Your task to perform on an android device: Open Chrome and go to settings Image 0: 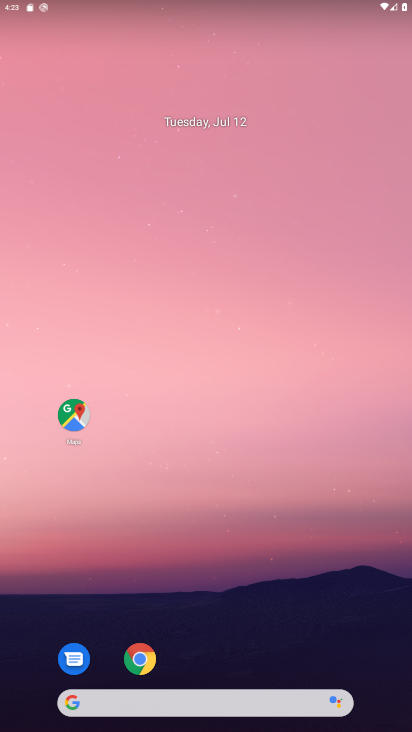
Step 0: click (133, 665)
Your task to perform on an android device: Open Chrome and go to settings Image 1: 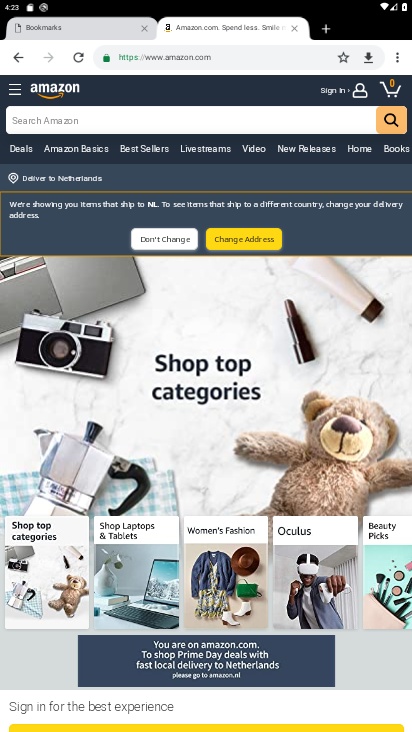
Step 1: click (393, 53)
Your task to perform on an android device: Open Chrome and go to settings Image 2: 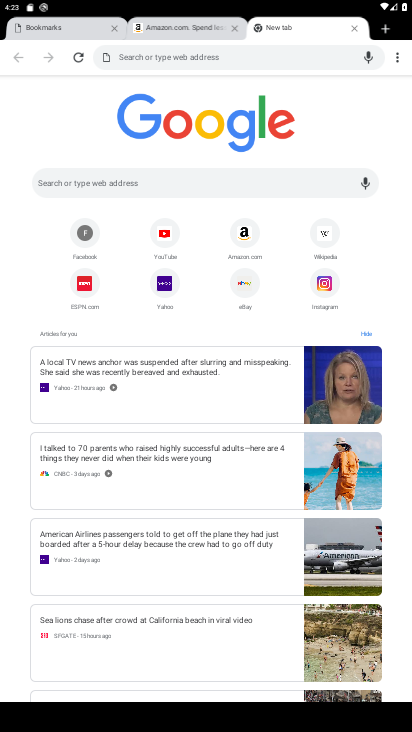
Step 2: click (396, 56)
Your task to perform on an android device: Open Chrome and go to settings Image 3: 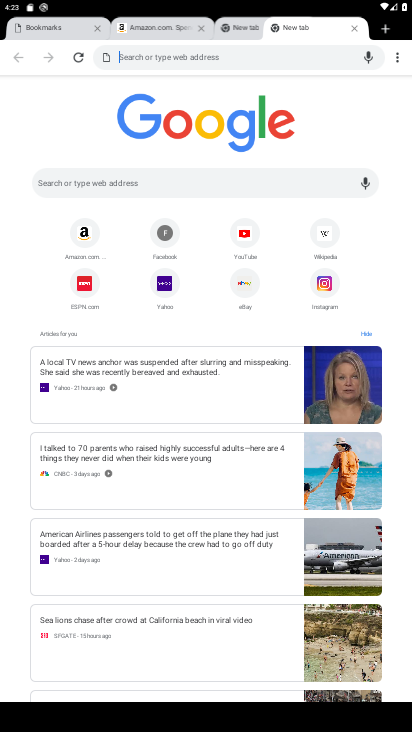
Step 3: click (399, 56)
Your task to perform on an android device: Open Chrome and go to settings Image 4: 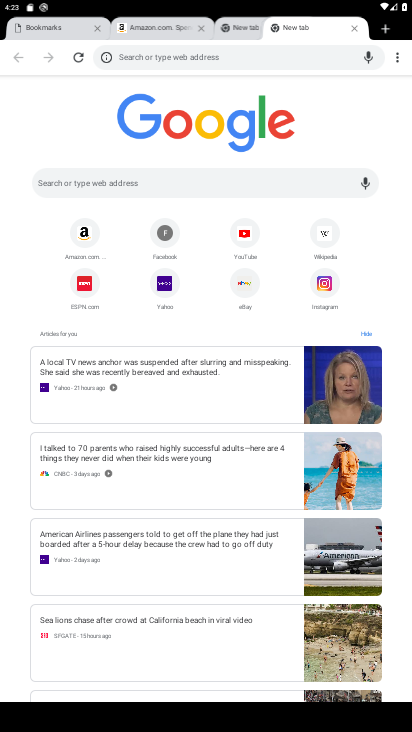
Step 4: task complete